Your task to perform on an android device: turn on improve location accuracy Image 0: 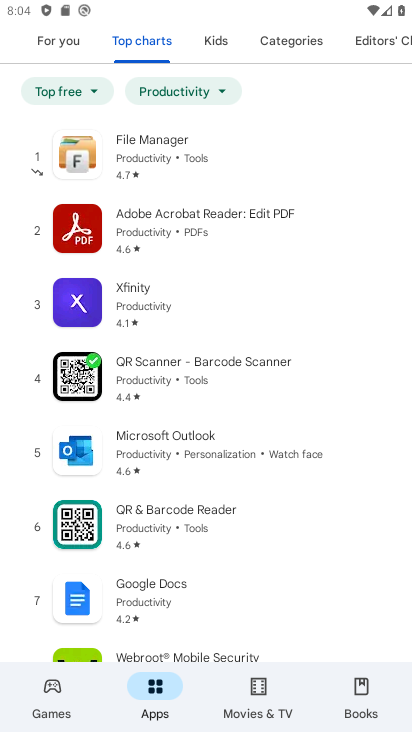
Step 0: press home button
Your task to perform on an android device: turn on improve location accuracy Image 1: 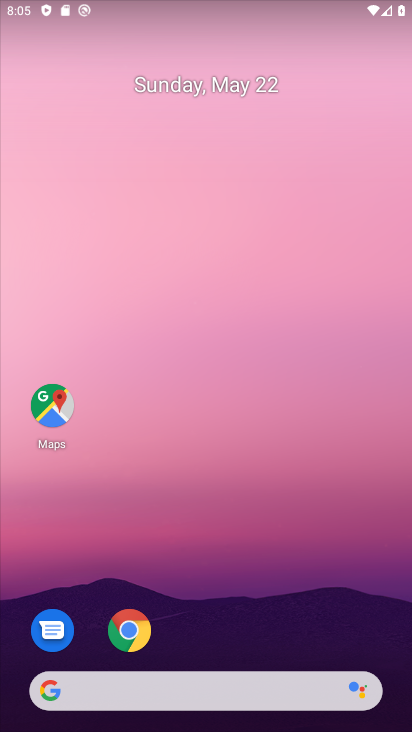
Step 1: drag from (215, 644) to (238, 157)
Your task to perform on an android device: turn on improve location accuracy Image 2: 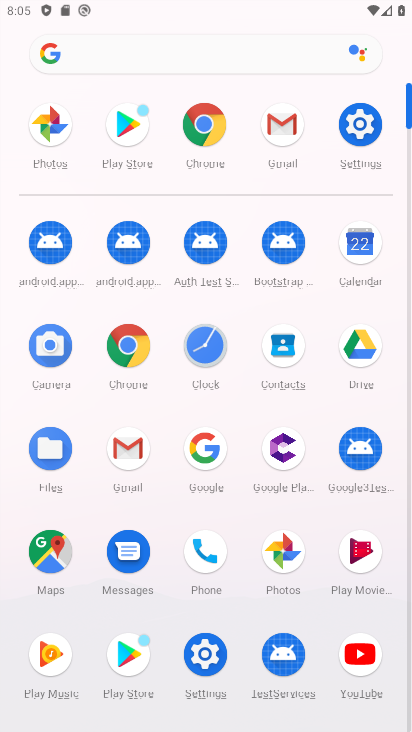
Step 2: click (350, 151)
Your task to perform on an android device: turn on improve location accuracy Image 3: 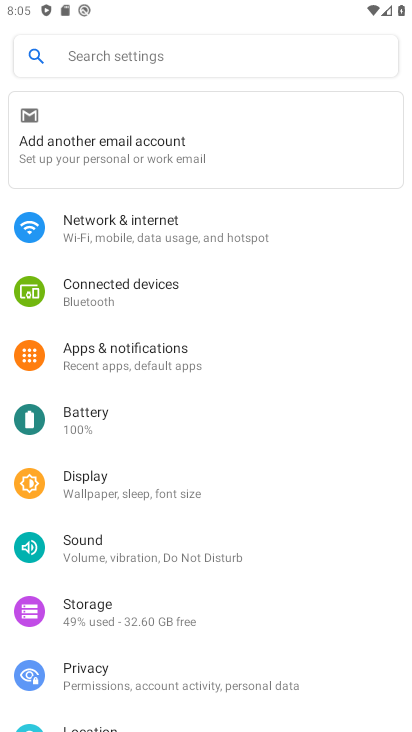
Step 3: drag from (126, 649) to (171, 464)
Your task to perform on an android device: turn on improve location accuracy Image 4: 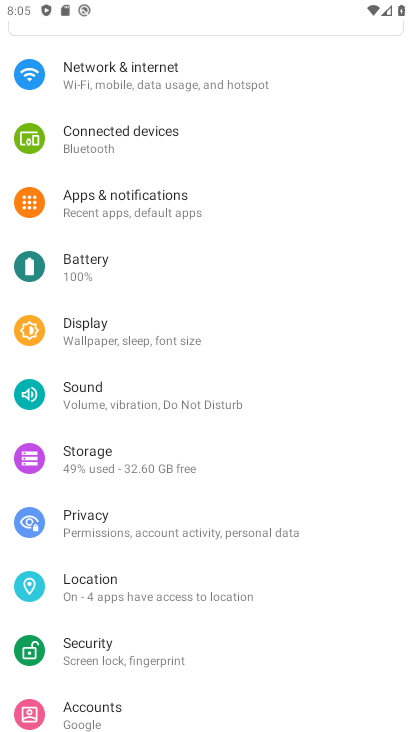
Step 4: click (197, 604)
Your task to perform on an android device: turn on improve location accuracy Image 5: 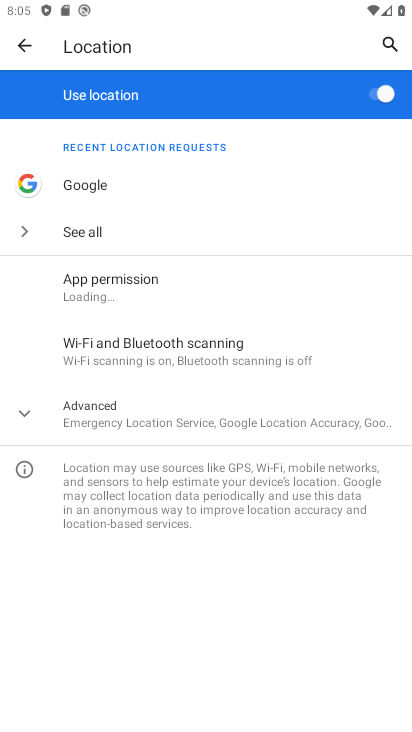
Step 5: click (138, 393)
Your task to perform on an android device: turn on improve location accuracy Image 6: 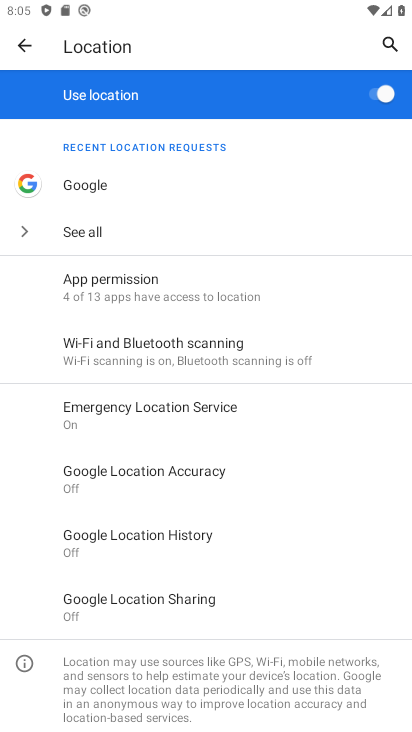
Step 6: click (192, 458)
Your task to perform on an android device: turn on improve location accuracy Image 7: 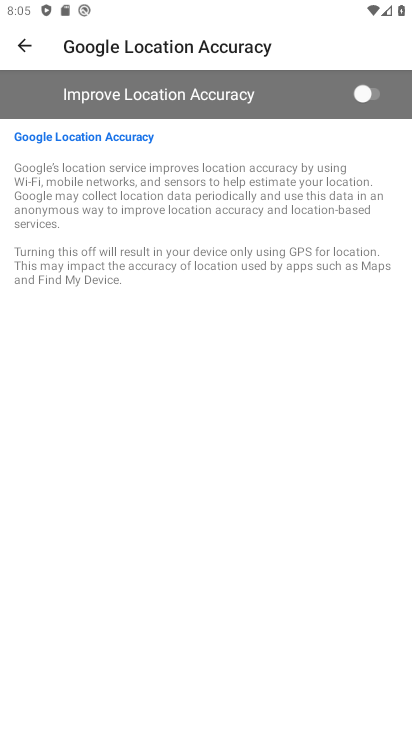
Step 7: click (363, 93)
Your task to perform on an android device: turn on improve location accuracy Image 8: 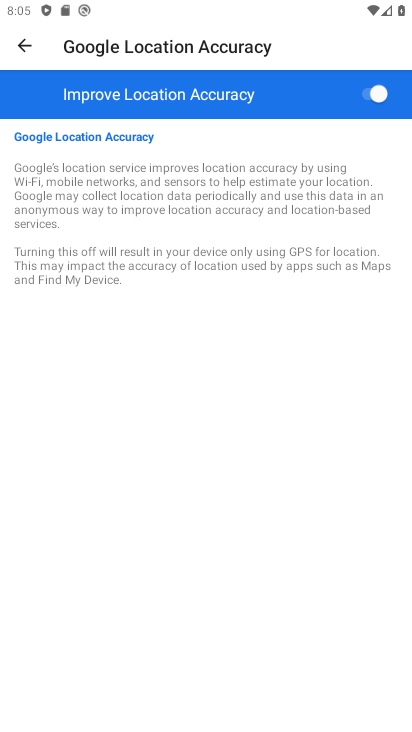
Step 8: task complete